Your task to perform on an android device: Go to Google Image 0: 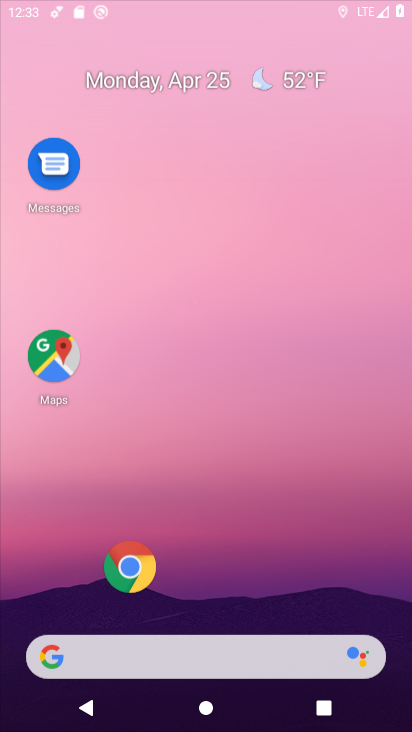
Step 0: drag from (232, 475) to (245, 107)
Your task to perform on an android device: Go to Google Image 1: 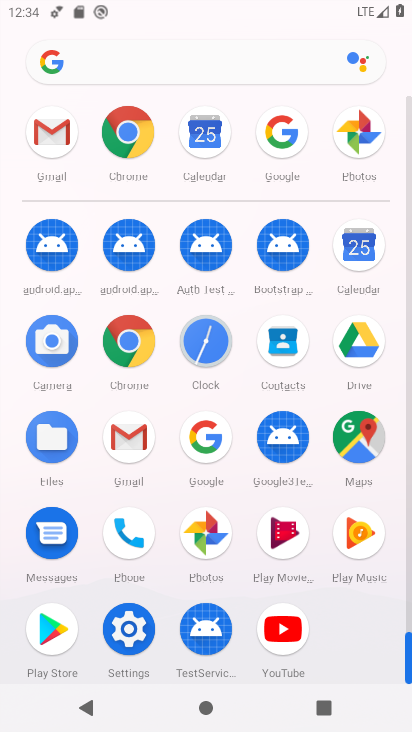
Step 1: click (206, 453)
Your task to perform on an android device: Go to Google Image 2: 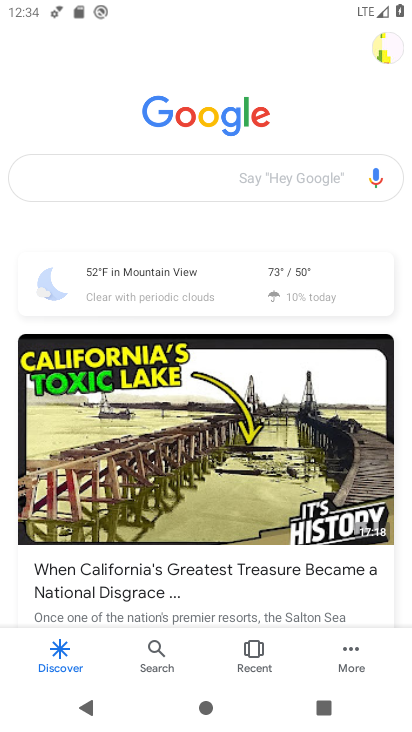
Step 2: task complete